Your task to perform on an android device: manage bookmarks in the chrome app Image 0: 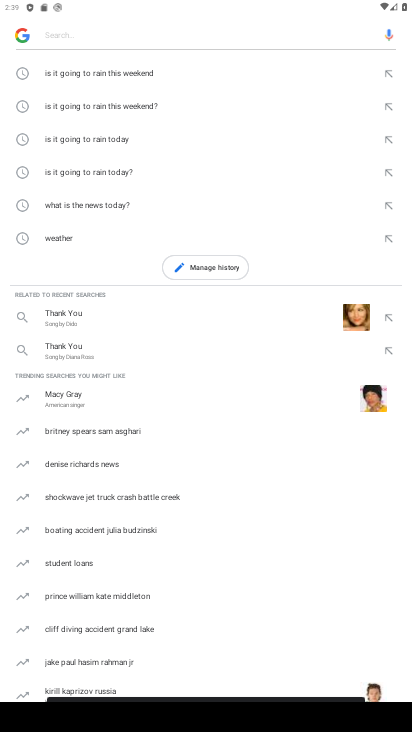
Step 0: press home button
Your task to perform on an android device: manage bookmarks in the chrome app Image 1: 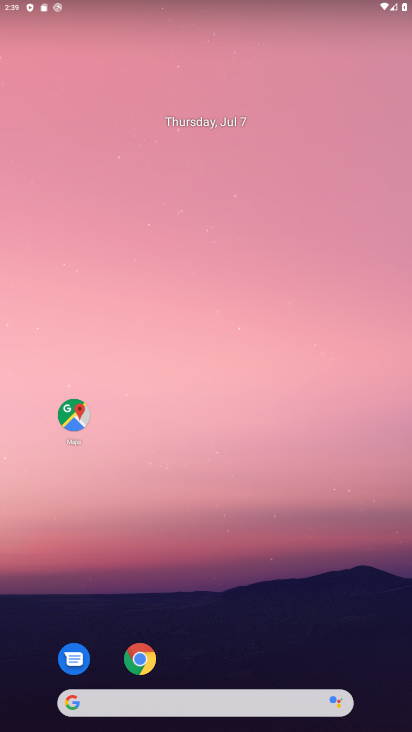
Step 1: drag from (299, 618) to (257, 115)
Your task to perform on an android device: manage bookmarks in the chrome app Image 2: 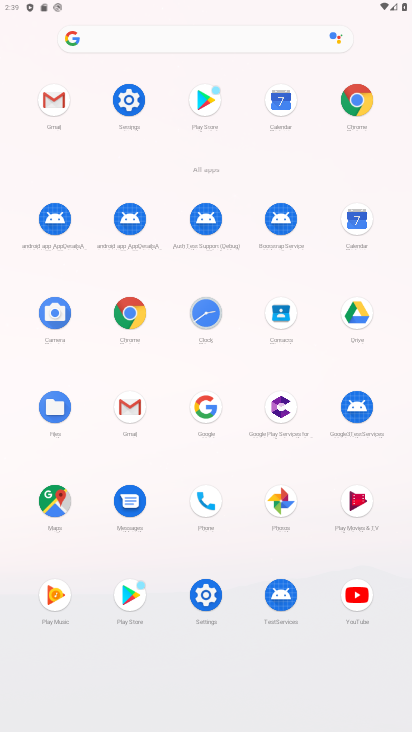
Step 2: click (363, 102)
Your task to perform on an android device: manage bookmarks in the chrome app Image 3: 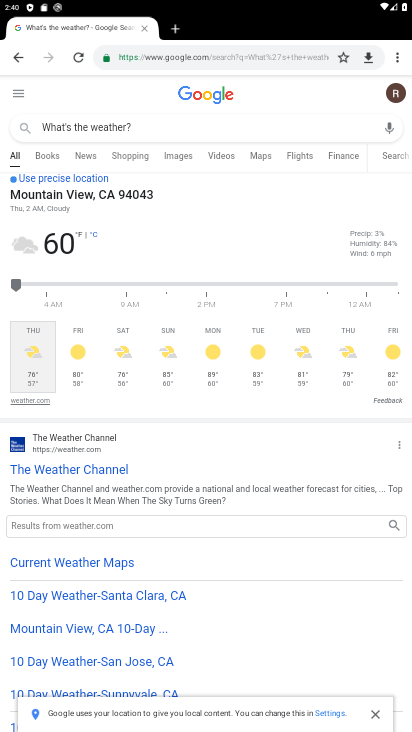
Step 3: click (404, 55)
Your task to perform on an android device: manage bookmarks in the chrome app Image 4: 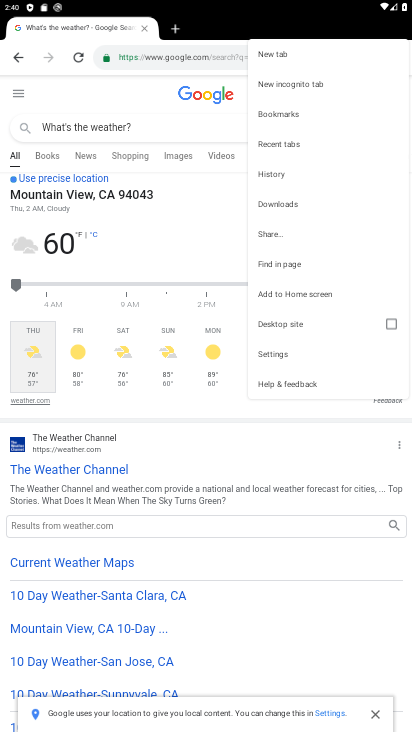
Step 4: click (339, 114)
Your task to perform on an android device: manage bookmarks in the chrome app Image 5: 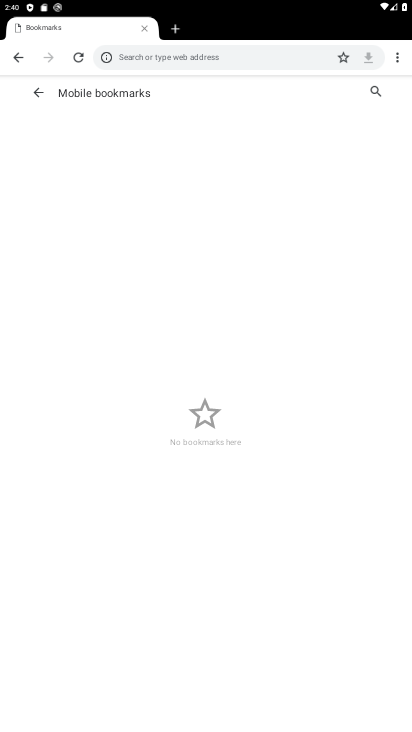
Step 5: task complete